Your task to perform on an android device: Open Google Maps and go to "Timeline" Image 0: 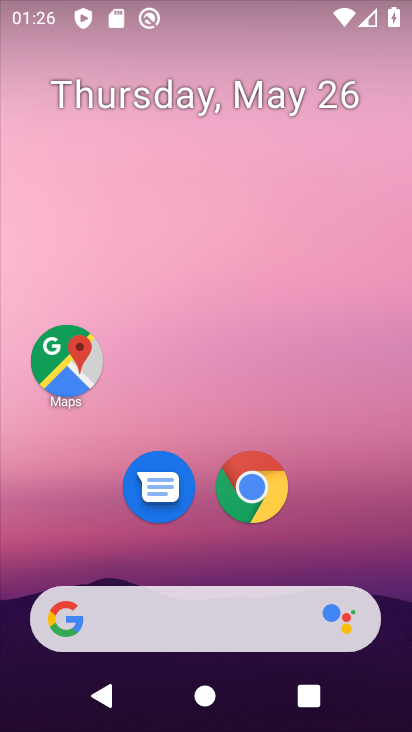
Step 0: click (403, 465)
Your task to perform on an android device: Open Google Maps and go to "Timeline" Image 1: 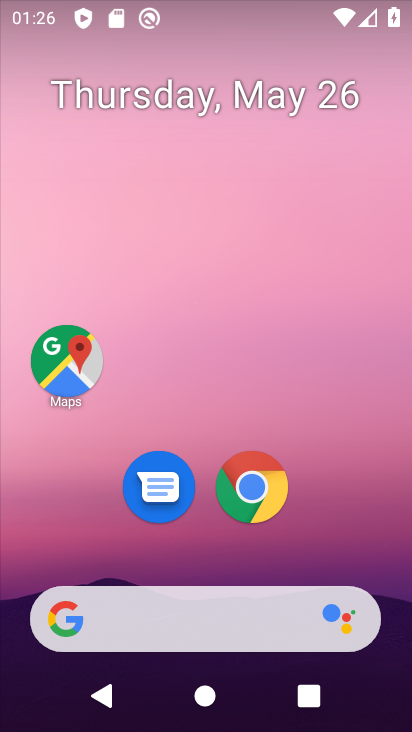
Step 1: click (76, 385)
Your task to perform on an android device: Open Google Maps and go to "Timeline" Image 2: 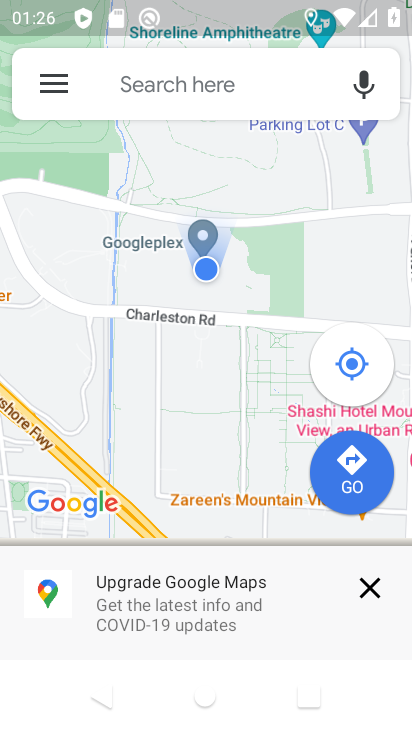
Step 2: click (35, 77)
Your task to perform on an android device: Open Google Maps and go to "Timeline" Image 3: 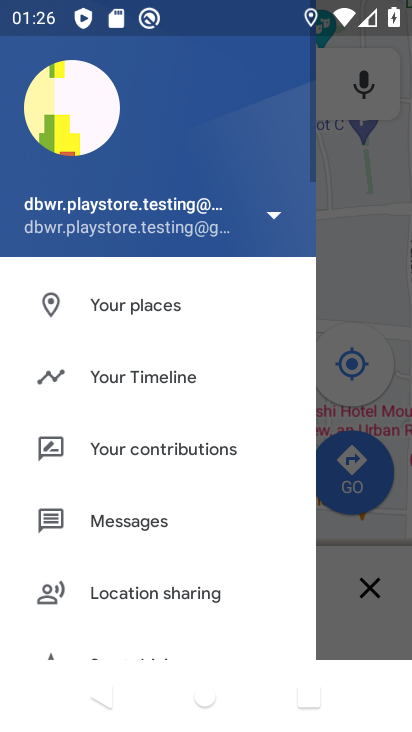
Step 3: click (133, 379)
Your task to perform on an android device: Open Google Maps and go to "Timeline" Image 4: 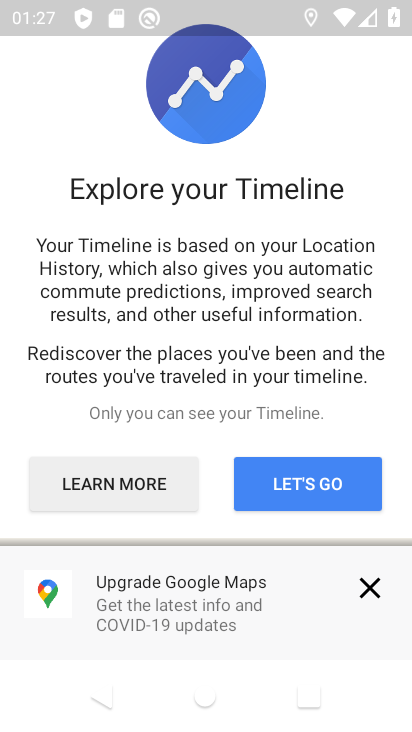
Step 4: click (371, 596)
Your task to perform on an android device: Open Google Maps and go to "Timeline" Image 5: 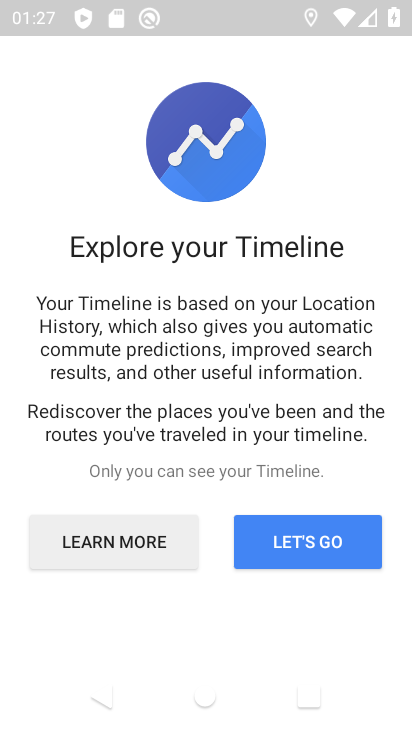
Step 5: click (290, 539)
Your task to perform on an android device: Open Google Maps and go to "Timeline" Image 6: 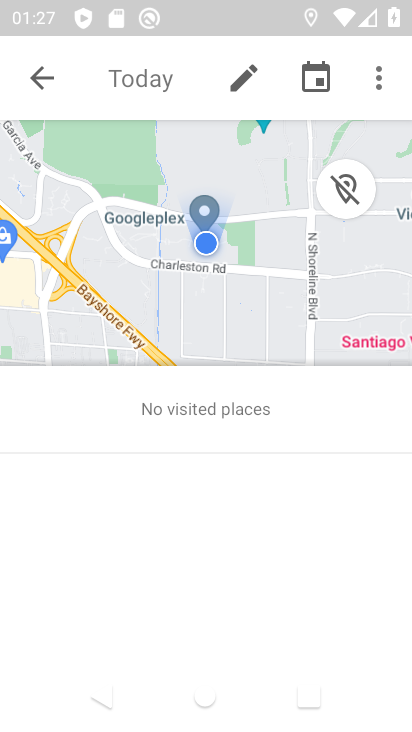
Step 6: task complete